Your task to perform on an android device: uninstall "Pandora - Music & Podcasts" Image 0: 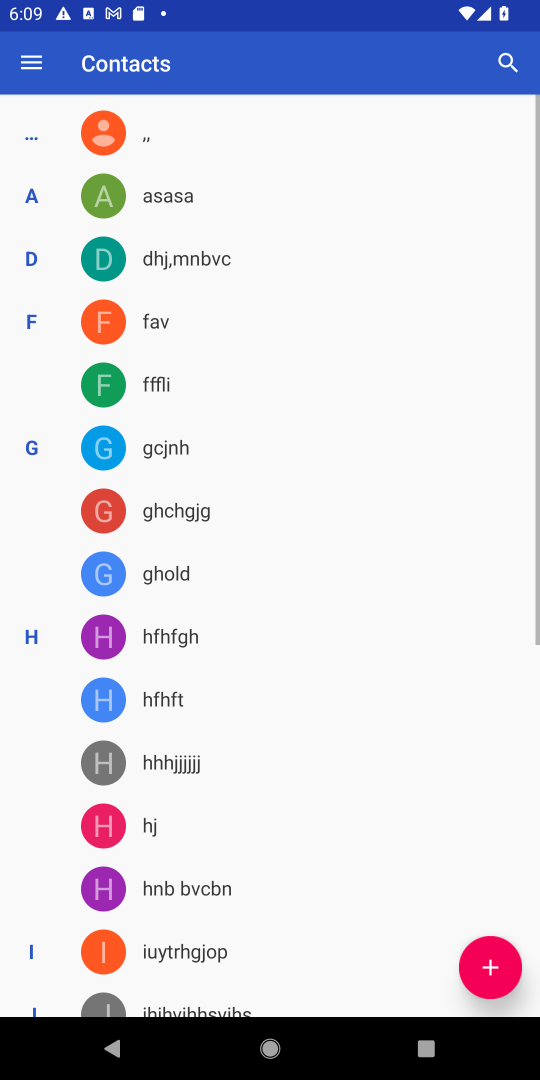
Step 0: press home button
Your task to perform on an android device: uninstall "Pandora - Music & Podcasts" Image 1: 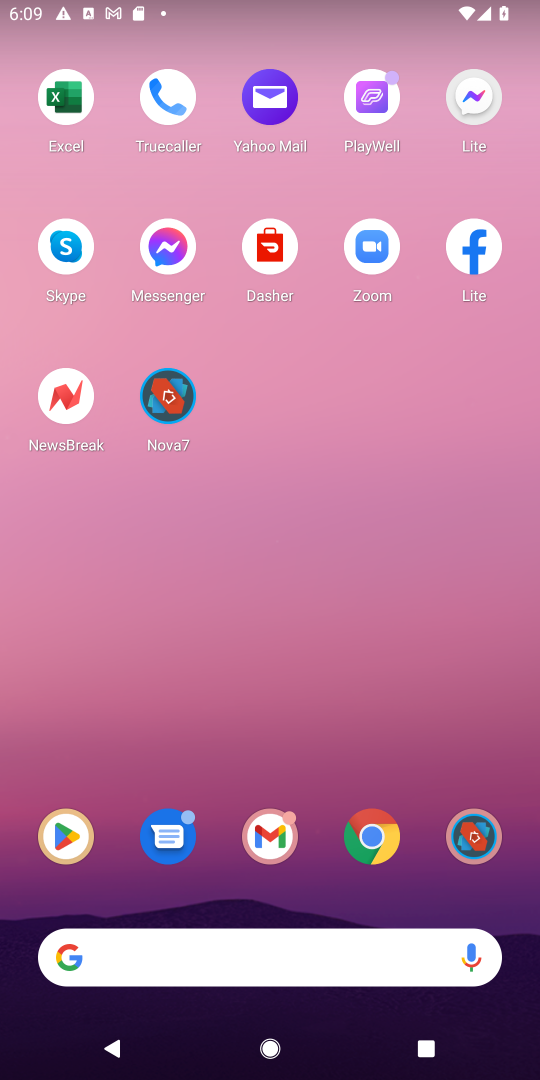
Step 1: click (71, 841)
Your task to perform on an android device: uninstall "Pandora - Music & Podcasts" Image 2: 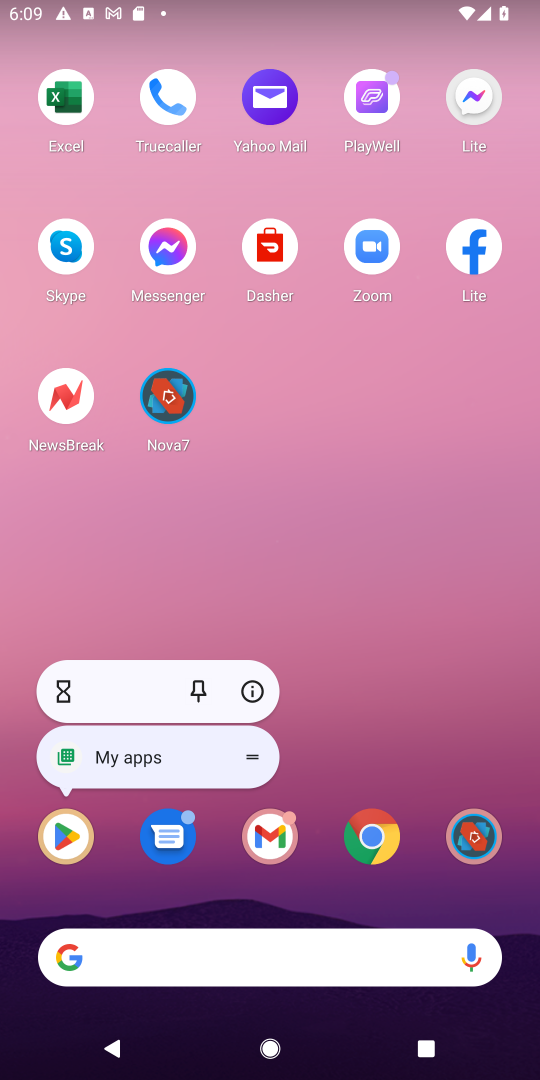
Step 2: click (71, 841)
Your task to perform on an android device: uninstall "Pandora - Music & Podcasts" Image 3: 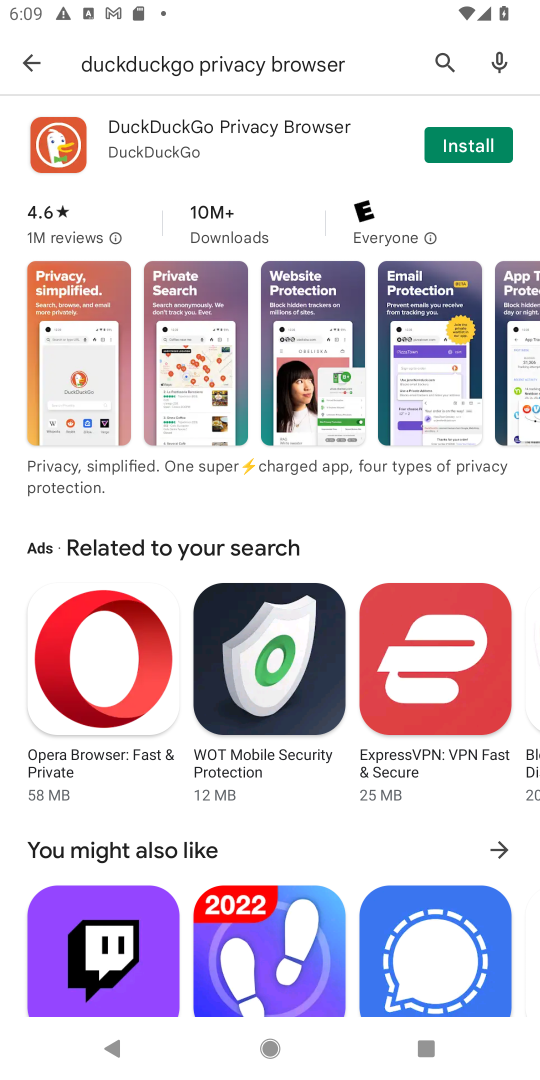
Step 3: click (438, 56)
Your task to perform on an android device: uninstall "Pandora - Music & Podcasts" Image 4: 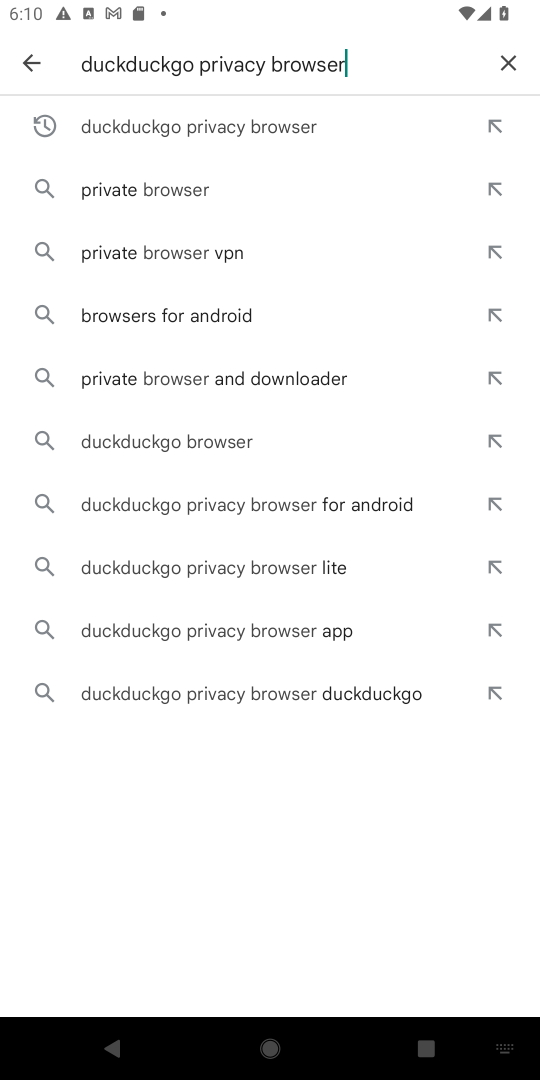
Step 4: click (512, 63)
Your task to perform on an android device: uninstall "Pandora - Music & Podcasts" Image 5: 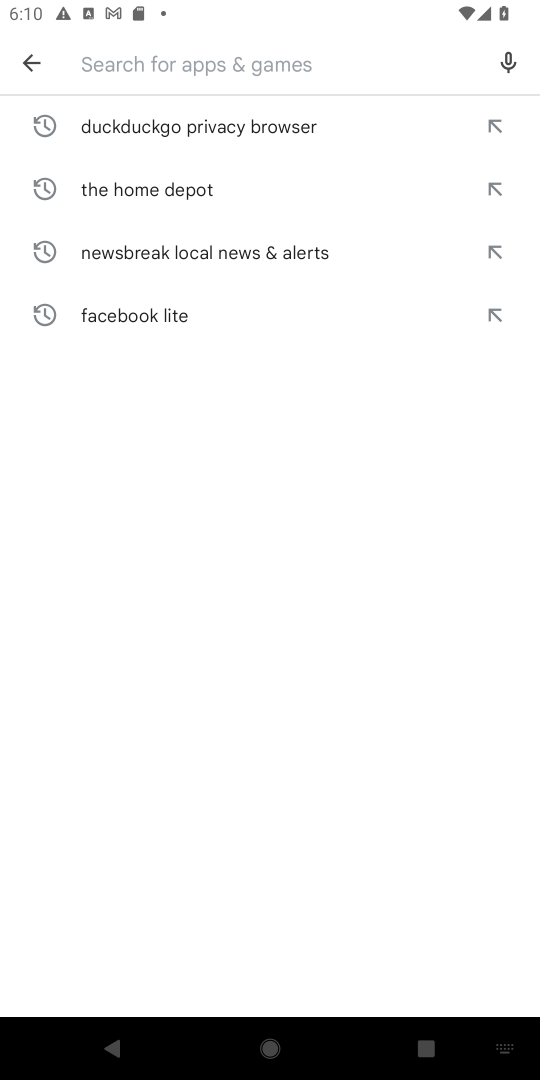
Step 5: type "Pandora - Music & Podcasts"
Your task to perform on an android device: uninstall "Pandora - Music & Podcasts" Image 6: 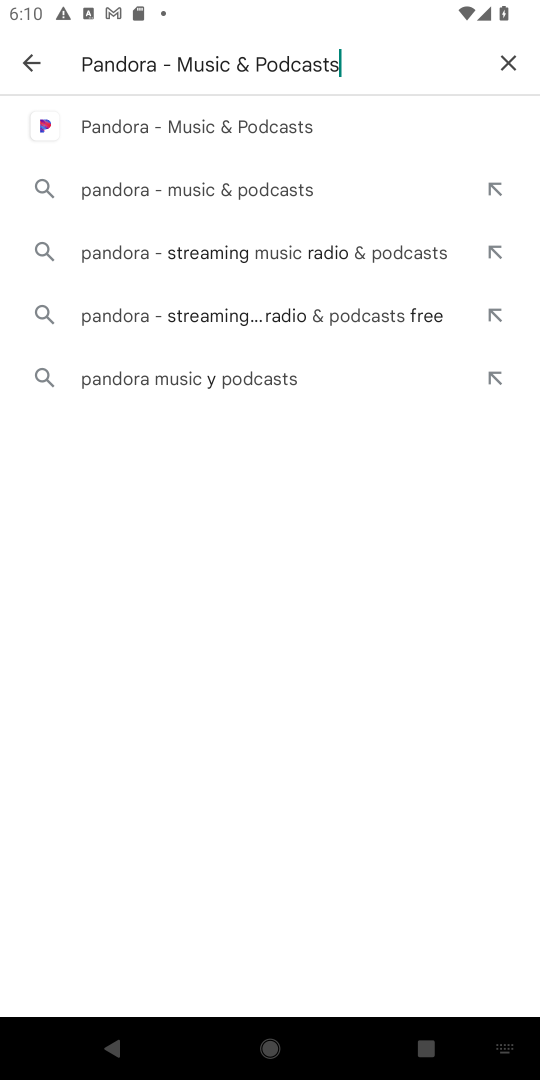
Step 6: click (177, 126)
Your task to perform on an android device: uninstall "Pandora - Music & Podcasts" Image 7: 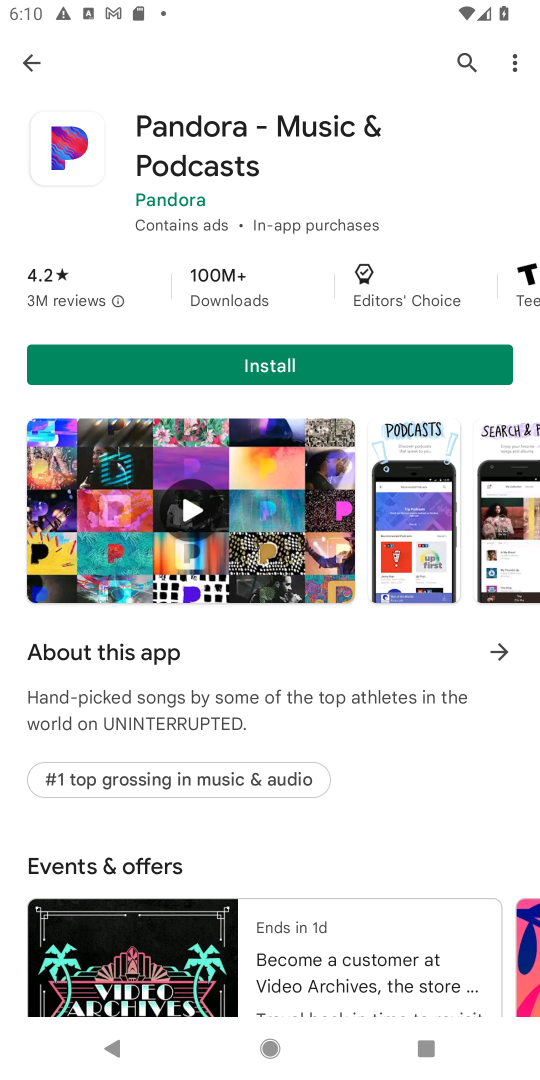
Step 7: task complete